Your task to perform on an android device: search for starred emails in the gmail app Image 0: 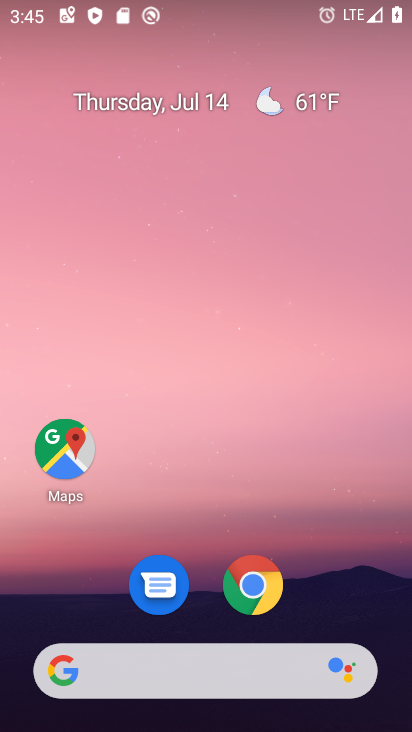
Step 0: drag from (355, 559) to (333, 82)
Your task to perform on an android device: search for starred emails in the gmail app Image 1: 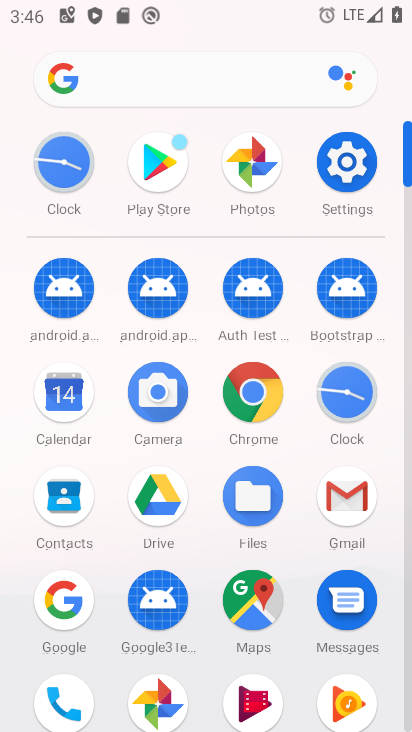
Step 1: click (342, 504)
Your task to perform on an android device: search for starred emails in the gmail app Image 2: 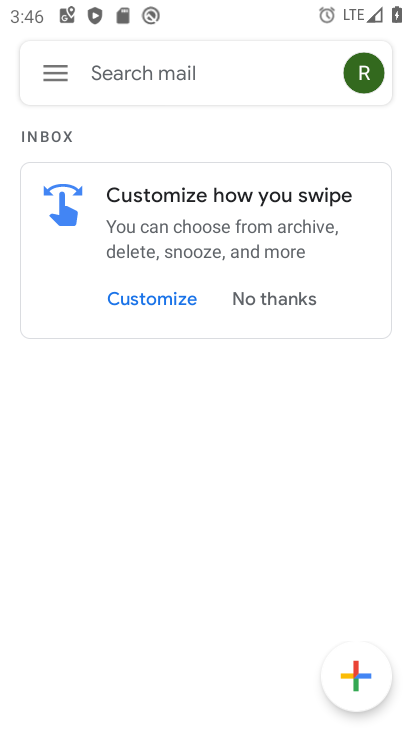
Step 2: click (281, 302)
Your task to perform on an android device: search for starred emails in the gmail app Image 3: 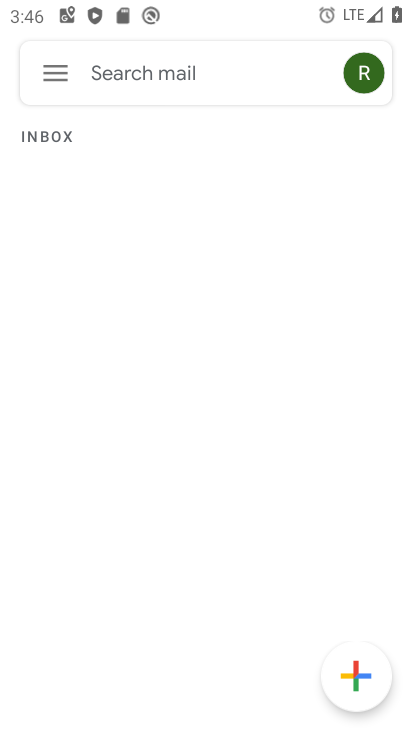
Step 3: click (53, 71)
Your task to perform on an android device: search for starred emails in the gmail app Image 4: 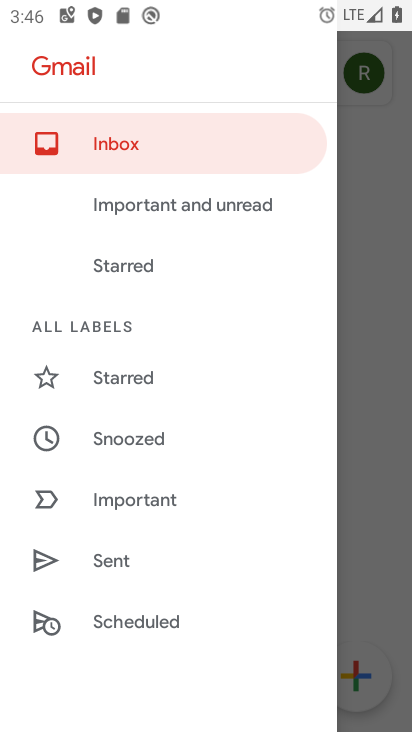
Step 4: click (154, 140)
Your task to perform on an android device: search for starred emails in the gmail app Image 5: 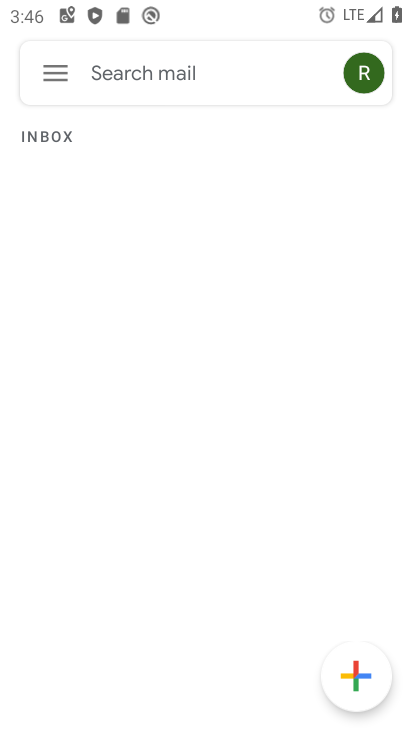
Step 5: click (59, 75)
Your task to perform on an android device: search for starred emails in the gmail app Image 6: 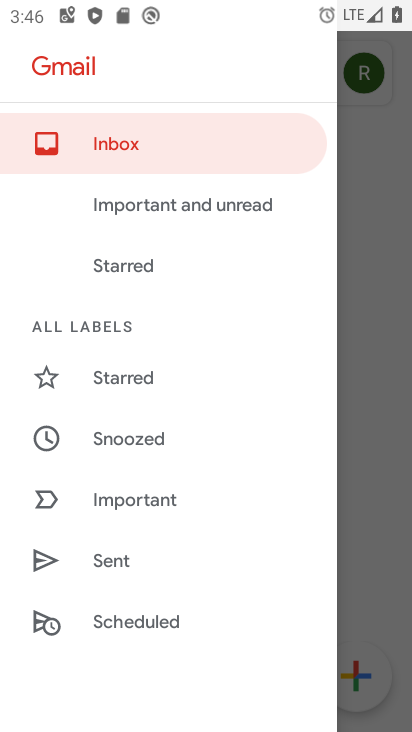
Step 6: click (120, 375)
Your task to perform on an android device: search for starred emails in the gmail app Image 7: 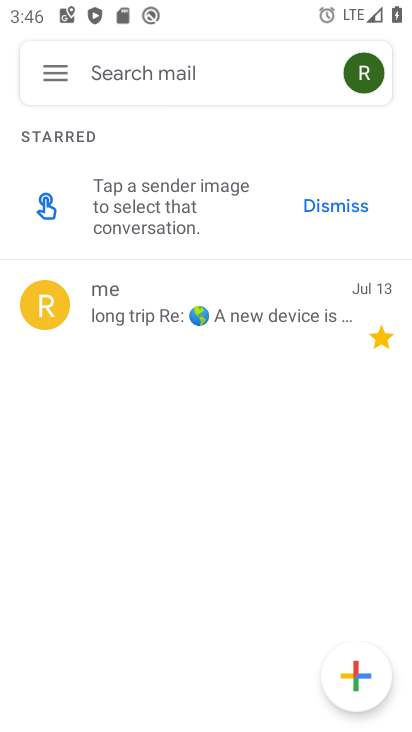
Step 7: task complete